Your task to perform on an android device: Open wifi settings Image 0: 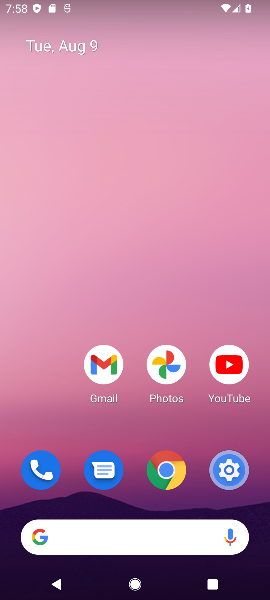
Step 0: click (227, 469)
Your task to perform on an android device: Open wifi settings Image 1: 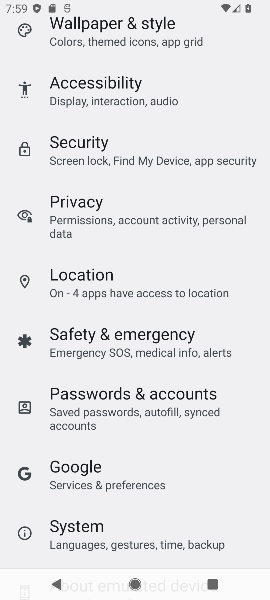
Step 1: drag from (172, 151) to (181, 257)
Your task to perform on an android device: Open wifi settings Image 2: 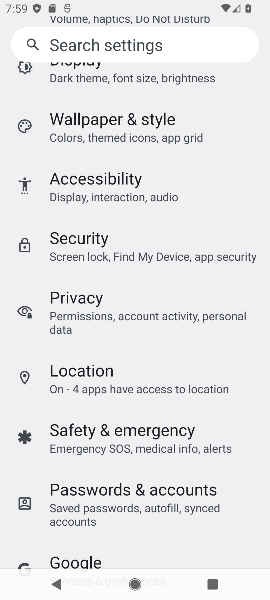
Step 2: drag from (155, 104) to (155, 267)
Your task to perform on an android device: Open wifi settings Image 3: 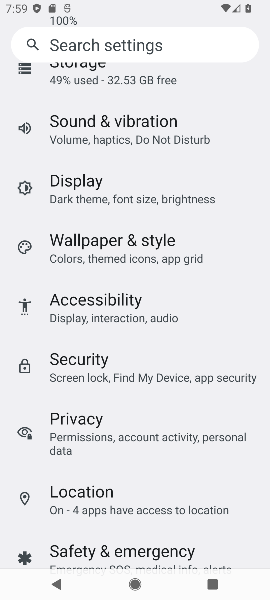
Step 3: drag from (136, 100) to (162, 229)
Your task to perform on an android device: Open wifi settings Image 4: 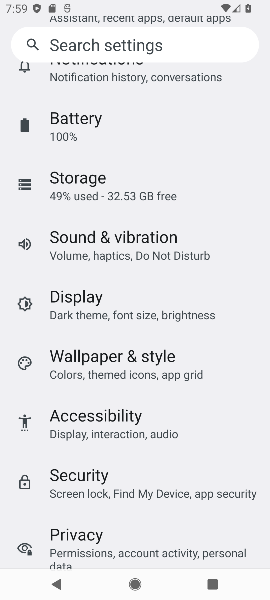
Step 4: drag from (114, 147) to (142, 240)
Your task to perform on an android device: Open wifi settings Image 5: 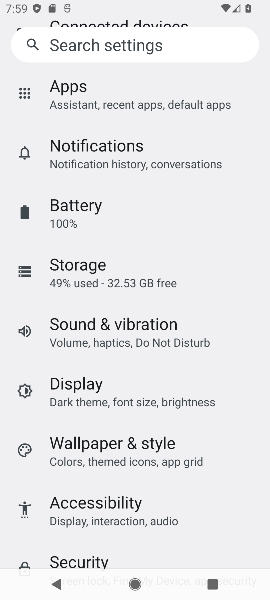
Step 5: drag from (95, 132) to (128, 232)
Your task to perform on an android device: Open wifi settings Image 6: 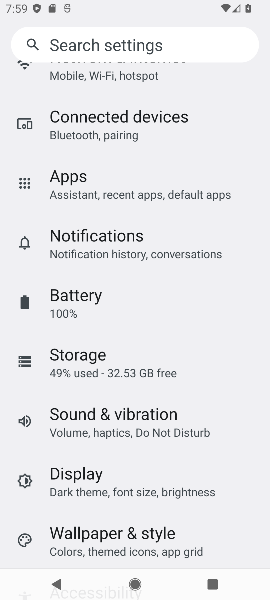
Step 6: drag from (93, 101) to (119, 207)
Your task to perform on an android device: Open wifi settings Image 7: 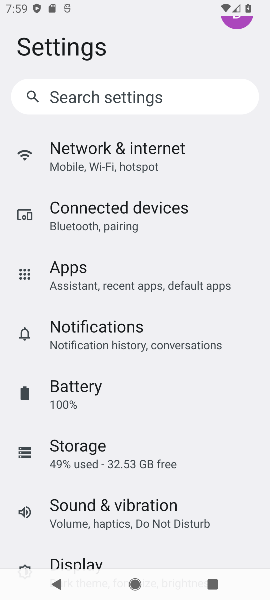
Step 7: click (130, 157)
Your task to perform on an android device: Open wifi settings Image 8: 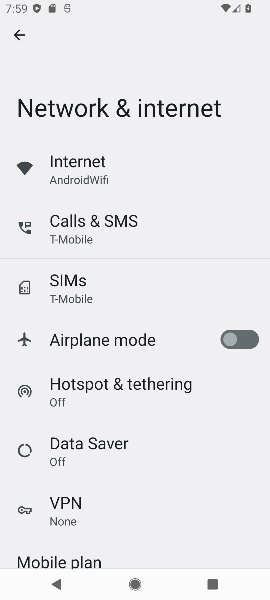
Step 8: click (86, 169)
Your task to perform on an android device: Open wifi settings Image 9: 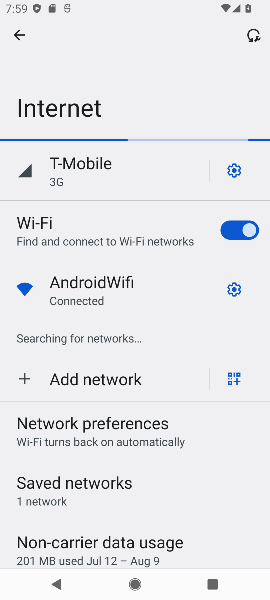
Step 9: click (232, 287)
Your task to perform on an android device: Open wifi settings Image 10: 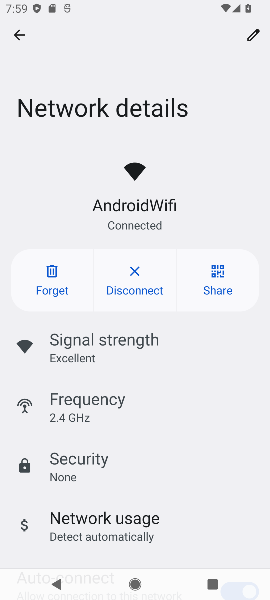
Step 10: task complete